Your task to perform on an android device: stop showing notifications on the lock screen Image 0: 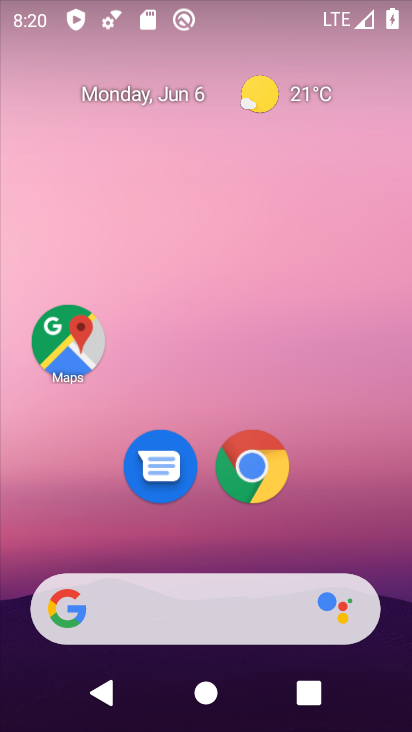
Step 0: drag from (207, 545) to (207, 76)
Your task to perform on an android device: stop showing notifications on the lock screen Image 1: 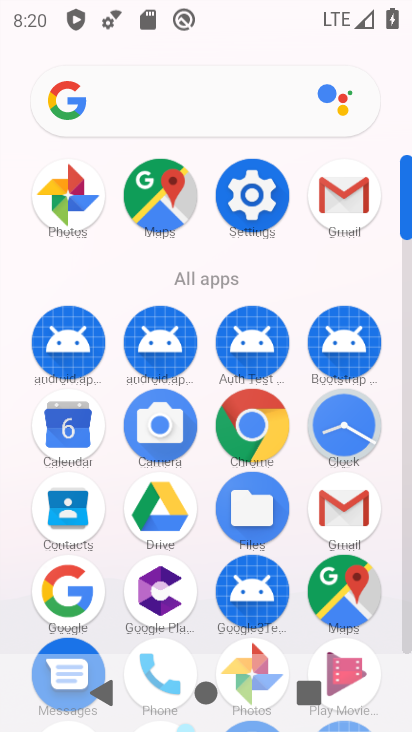
Step 1: click (272, 199)
Your task to perform on an android device: stop showing notifications on the lock screen Image 2: 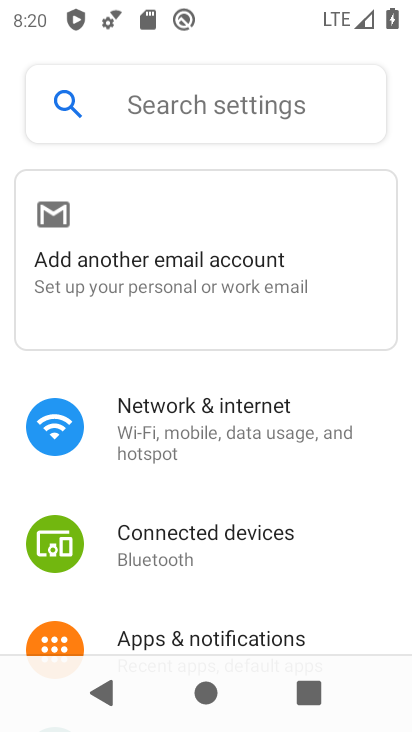
Step 2: drag from (215, 612) to (293, 0)
Your task to perform on an android device: stop showing notifications on the lock screen Image 3: 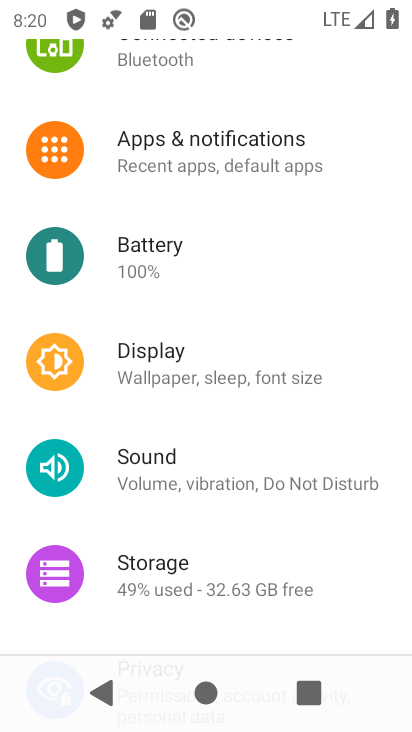
Step 3: click (238, 137)
Your task to perform on an android device: stop showing notifications on the lock screen Image 4: 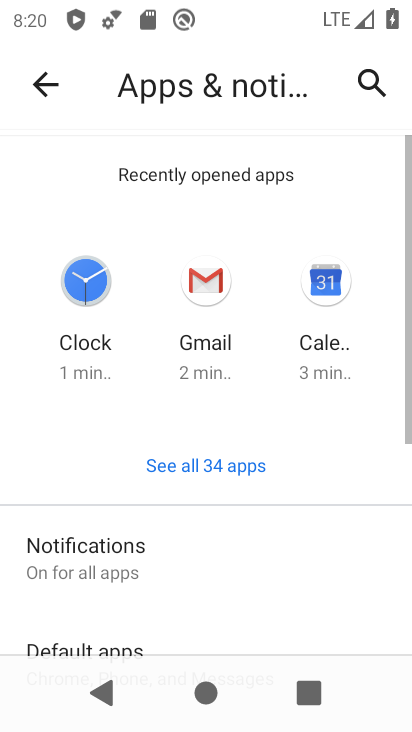
Step 4: drag from (213, 586) to (332, 39)
Your task to perform on an android device: stop showing notifications on the lock screen Image 5: 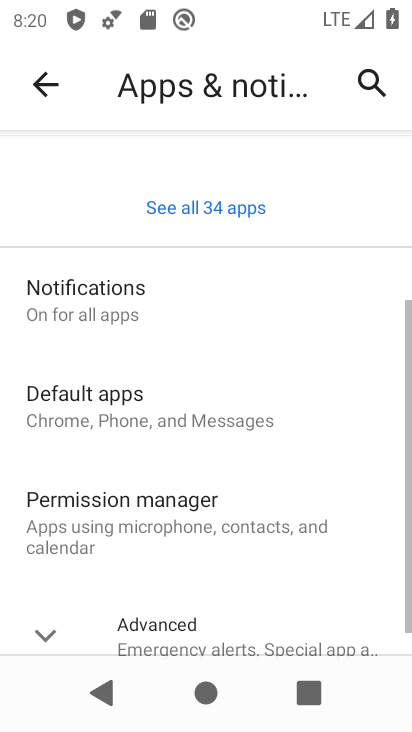
Step 5: drag from (187, 582) to (233, 141)
Your task to perform on an android device: stop showing notifications on the lock screen Image 6: 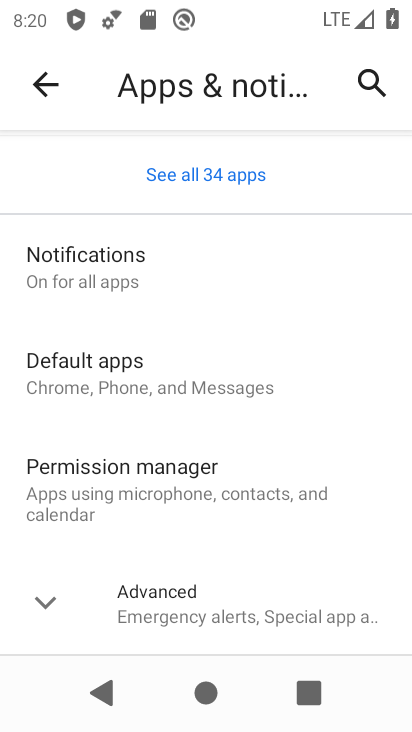
Step 6: click (154, 277)
Your task to perform on an android device: stop showing notifications on the lock screen Image 7: 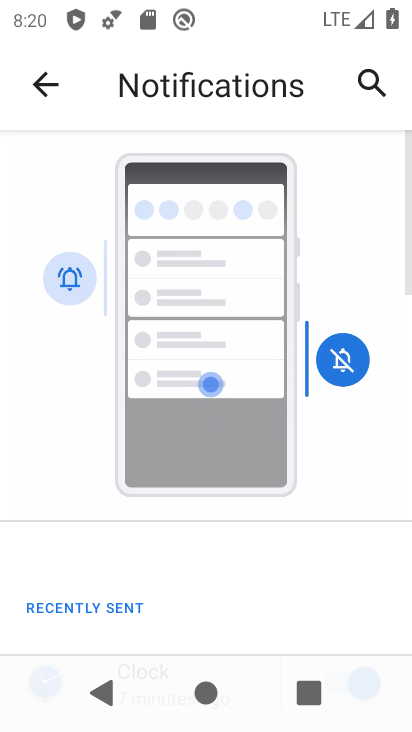
Step 7: drag from (226, 537) to (239, 121)
Your task to perform on an android device: stop showing notifications on the lock screen Image 8: 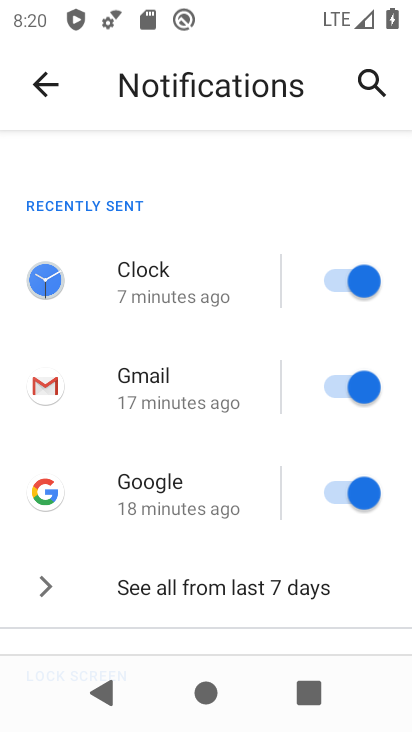
Step 8: drag from (243, 398) to (283, 62)
Your task to perform on an android device: stop showing notifications on the lock screen Image 9: 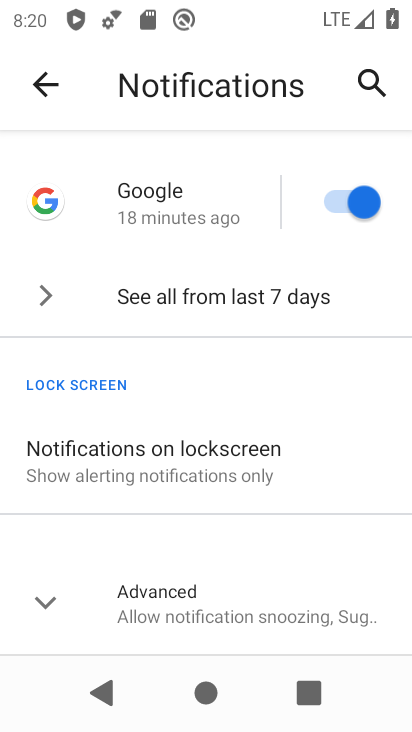
Step 9: click (180, 470)
Your task to perform on an android device: stop showing notifications on the lock screen Image 10: 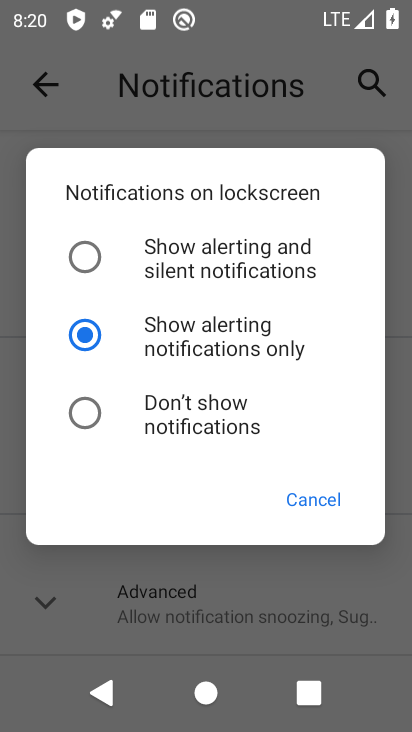
Step 10: click (142, 435)
Your task to perform on an android device: stop showing notifications on the lock screen Image 11: 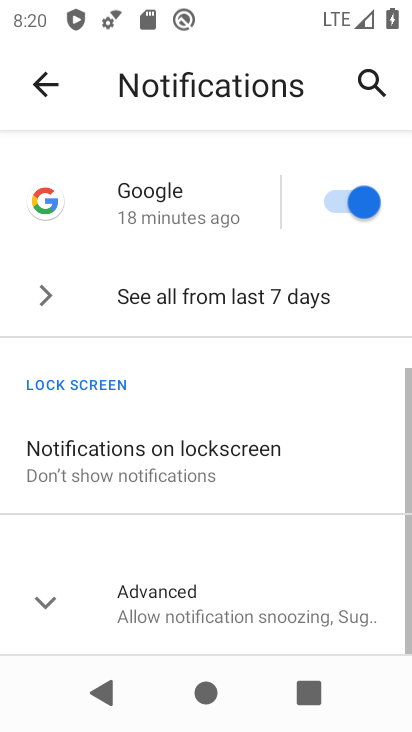
Step 11: task complete